Your task to perform on an android device: star an email in the gmail app Image 0: 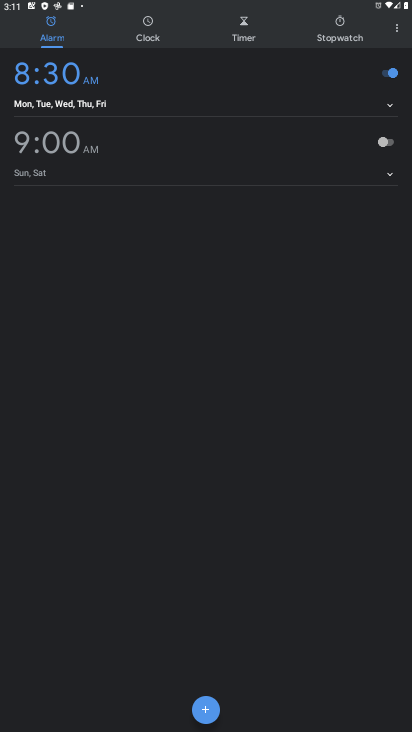
Step 0: press home button
Your task to perform on an android device: star an email in the gmail app Image 1: 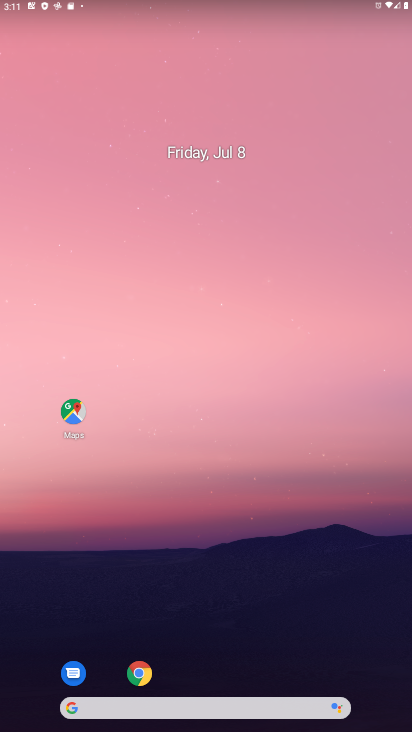
Step 1: drag from (387, 679) to (344, 192)
Your task to perform on an android device: star an email in the gmail app Image 2: 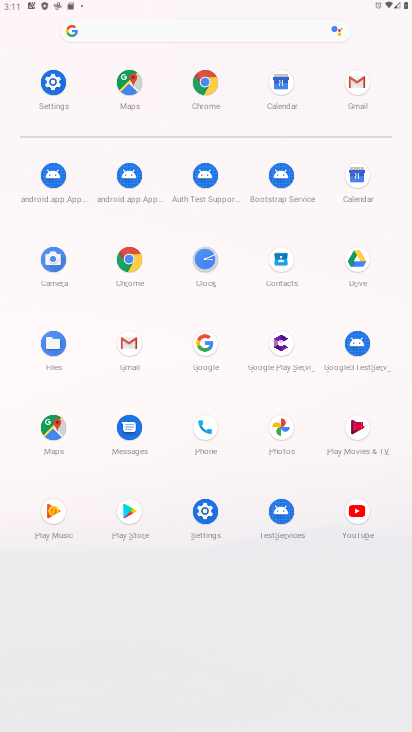
Step 2: click (140, 348)
Your task to perform on an android device: star an email in the gmail app Image 3: 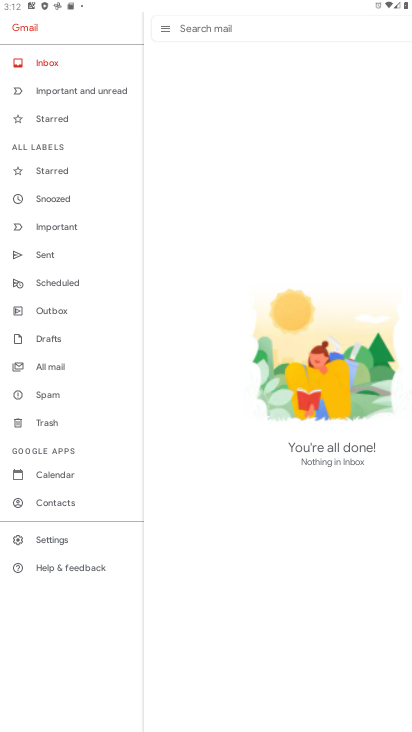
Step 3: task complete